Your task to perform on an android device: turn off location Image 0: 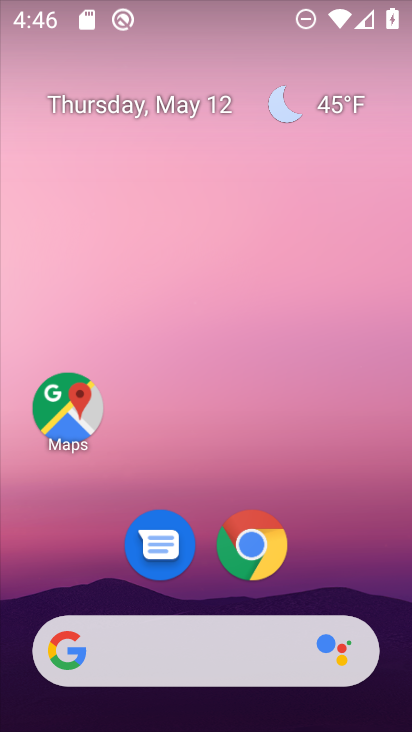
Step 0: drag from (313, 426) to (305, 128)
Your task to perform on an android device: turn off location Image 1: 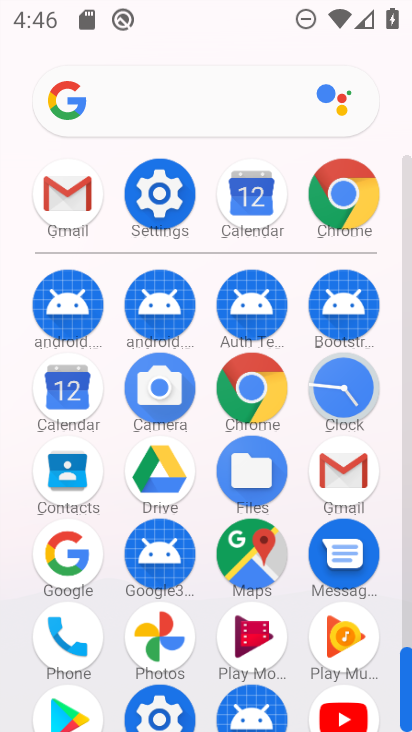
Step 1: click (174, 193)
Your task to perform on an android device: turn off location Image 2: 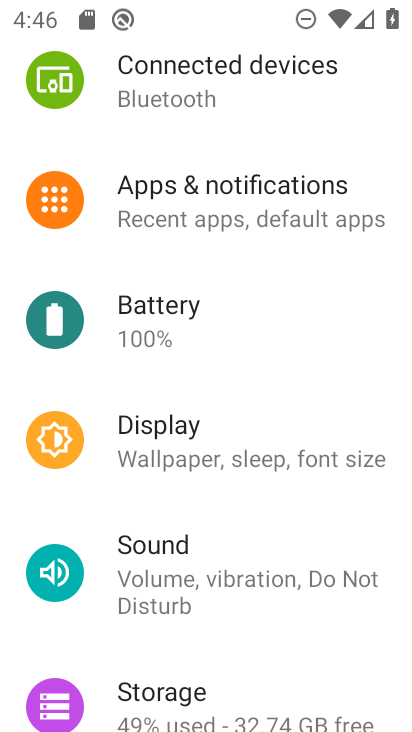
Step 2: drag from (259, 592) to (285, 80)
Your task to perform on an android device: turn off location Image 3: 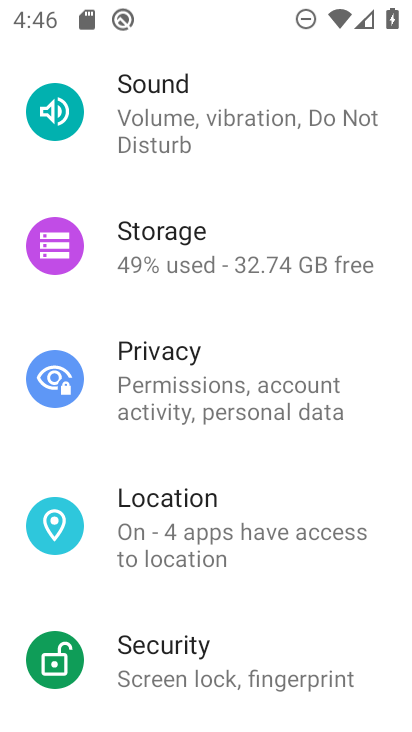
Step 3: click (192, 537)
Your task to perform on an android device: turn off location Image 4: 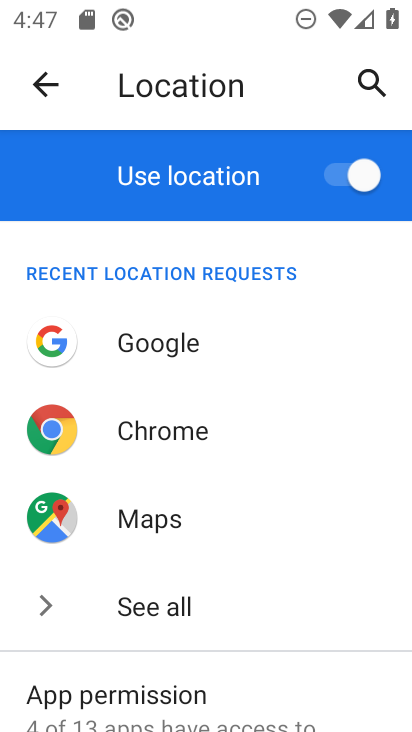
Step 4: click (335, 175)
Your task to perform on an android device: turn off location Image 5: 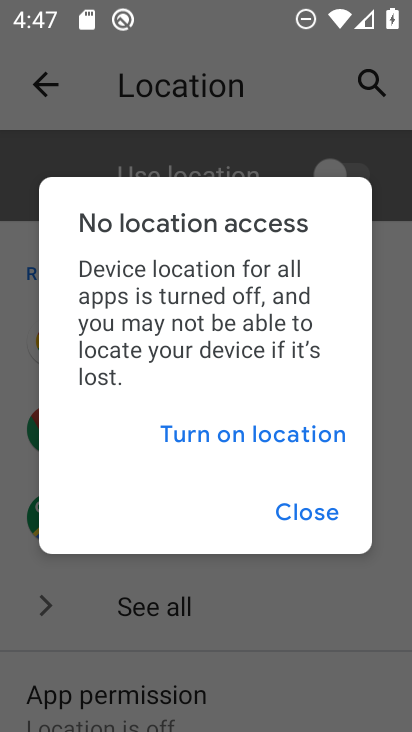
Step 5: task complete